Your task to perform on an android device: Open Google Maps Image 0: 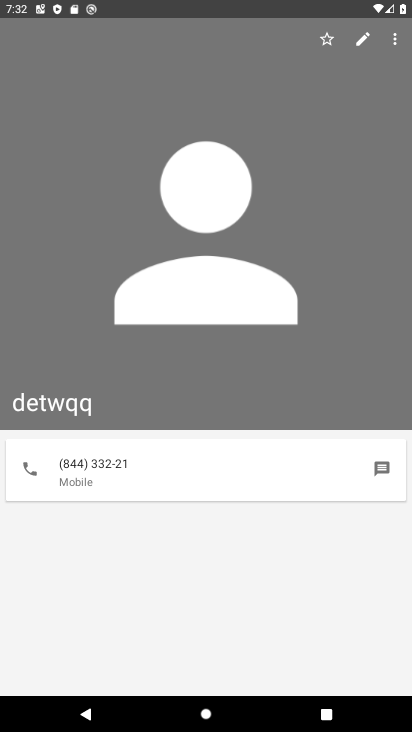
Step 0: press home button
Your task to perform on an android device: Open Google Maps Image 1: 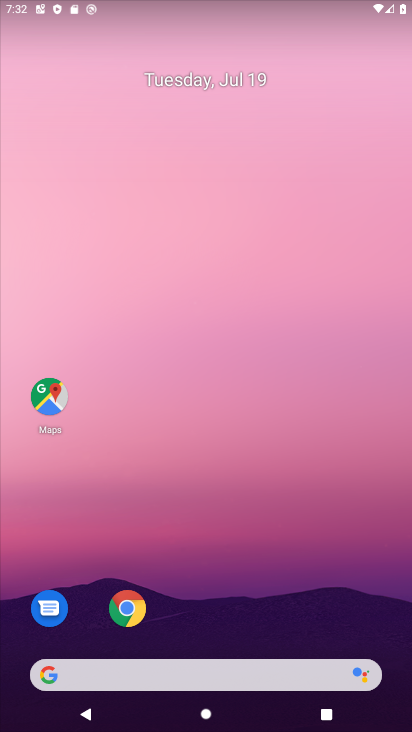
Step 1: click (51, 397)
Your task to perform on an android device: Open Google Maps Image 2: 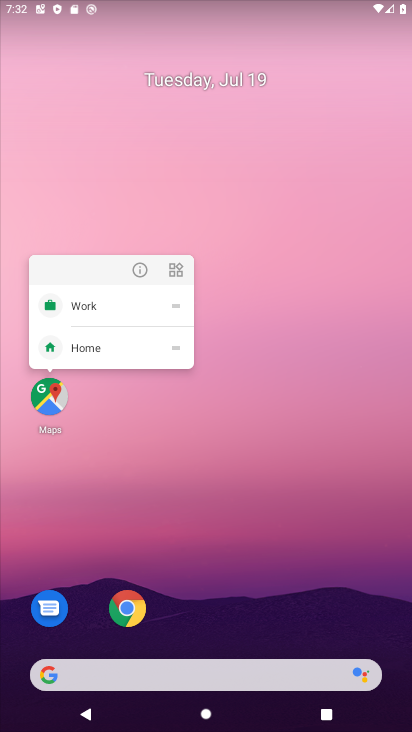
Step 2: click (51, 397)
Your task to perform on an android device: Open Google Maps Image 3: 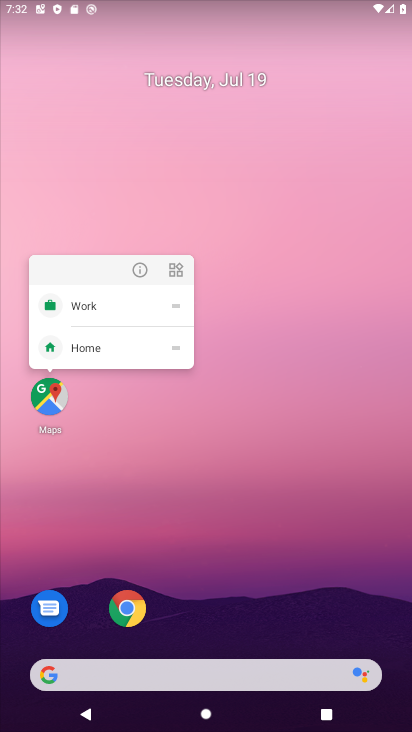
Step 3: click (49, 402)
Your task to perform on an android device: Open Google Maps Image 4: 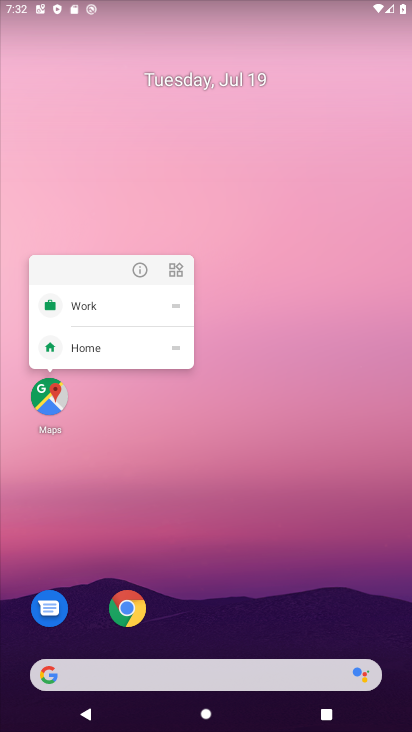
Step 4: click (45, 402)
Your task to perform on an android device: Open Google Maps Image 5: 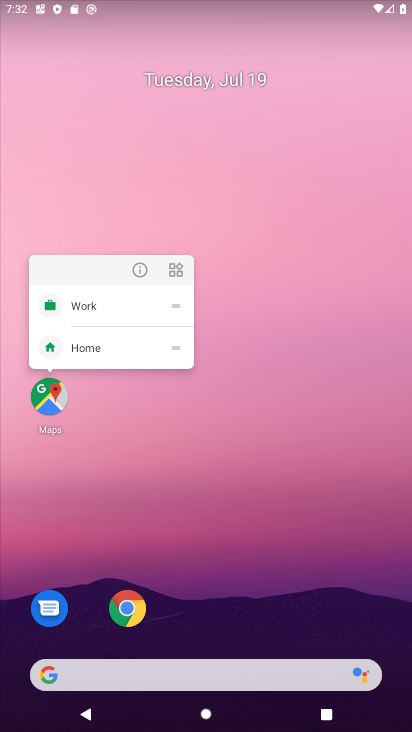
Step 5: click (45, 400)
Your task to perform on an android device: Open Google Maps Image 6: 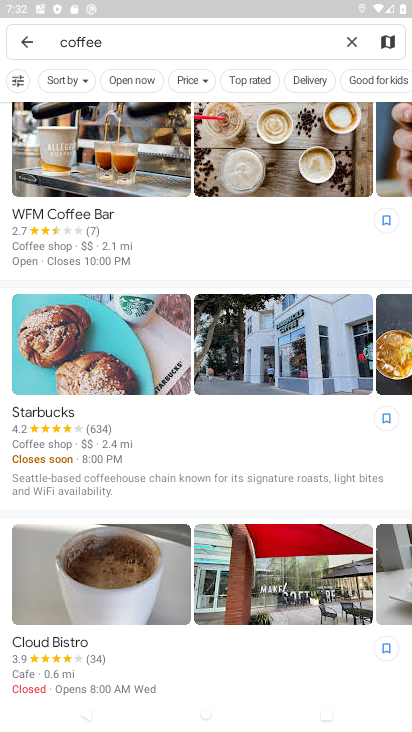
Step 6: click (33, 37)
Your task to perform on an android device: Open Google Maps Image 7: 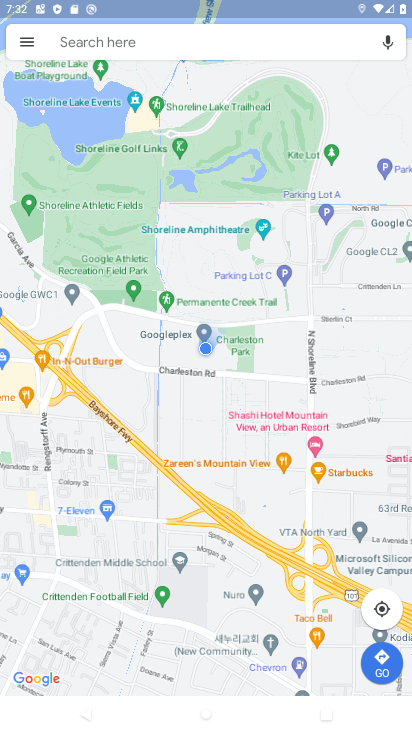
Step 7: task complete